Your task to perform on an android device: Is it going to rain tomorrow? Image 0: 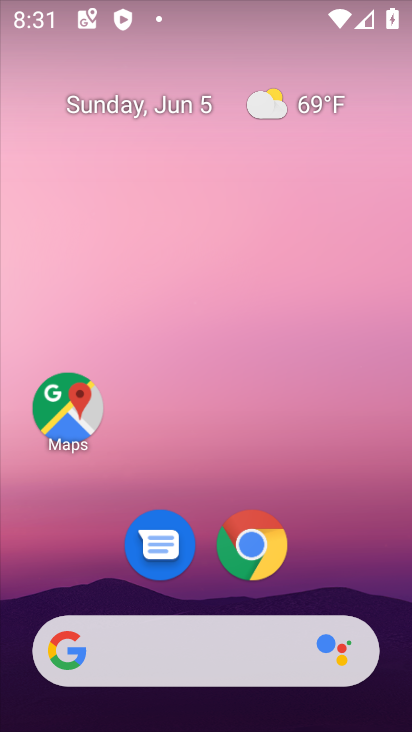
Step 0: drag from (367, 580) to (370, 214)
Your task to perform on an android device: Is it going to rain tomorrow? Image 1: 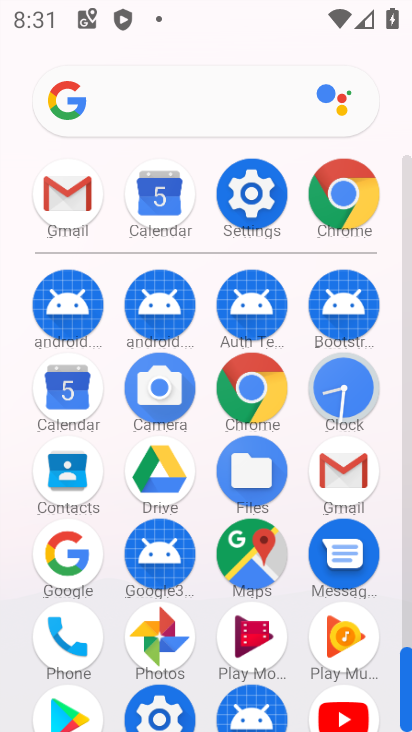
Step 1: click (231, 101)
Your task to perform on an android device: Is it going to rain tomorrow? Image 2: 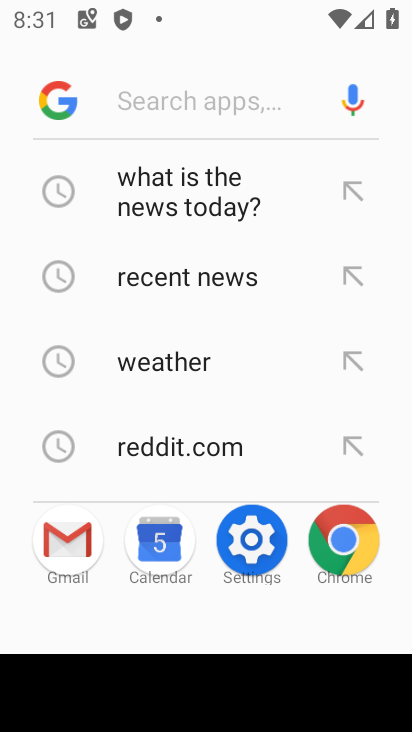
Step 2: click (216, 366)
Your task to perform on an android device: Is it going to rain tomorrow? Image 3: 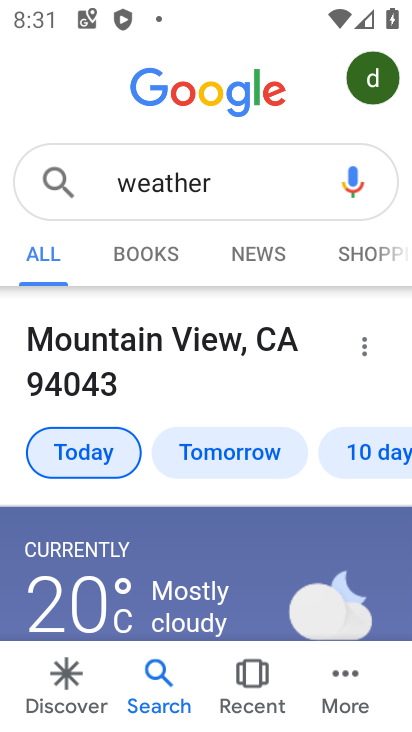
Step 3: click (224, 455)
Your task to perform on an android device: Is it going to rain tomorrow? Image 4: 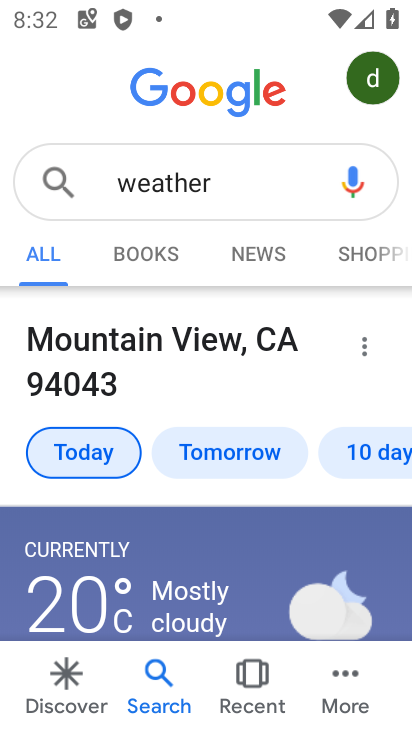
Step 4: click (226, 455)
Your task to perform on an android device: Is it going to rain tomorrow? Image 5: 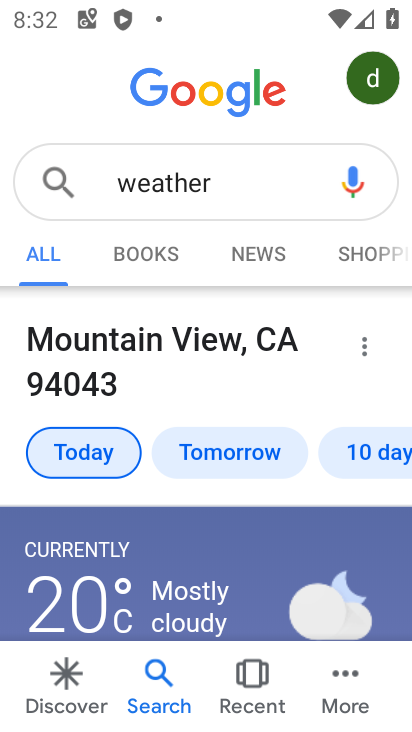
Step 5: drag from (285, 528) to (300, 365)
Your task to perform on an android device: Is it going to rain tomorrow? Image 6: 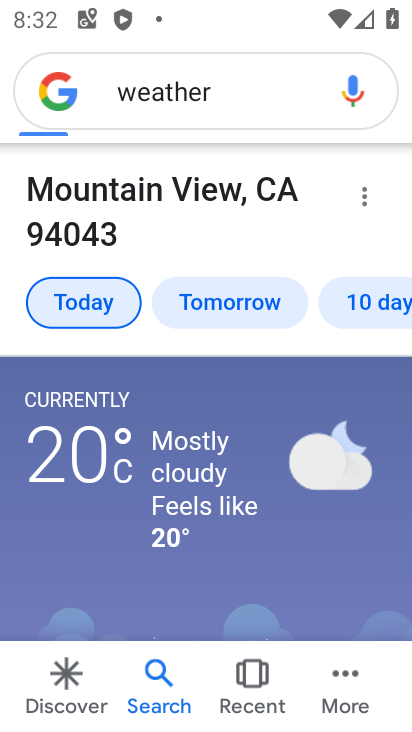
Step 6: click (230, 306)
Your task to perform on an android device: Is it going to rain tomorrow? Image 7: 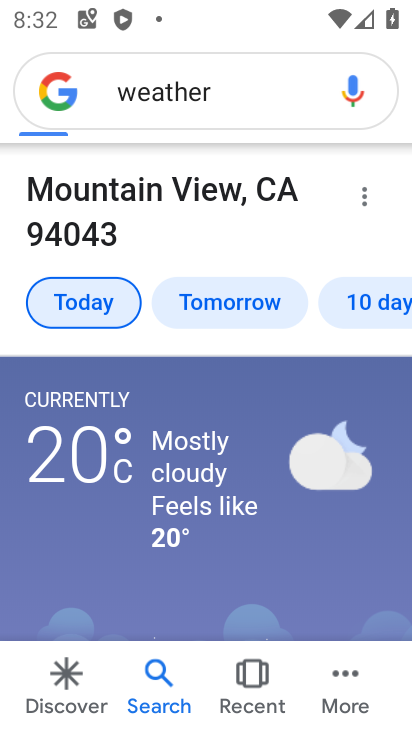
Step 7: click (230, 306)
Your task to perform on an android device: Is it going to rain tomorrow? Image 8: 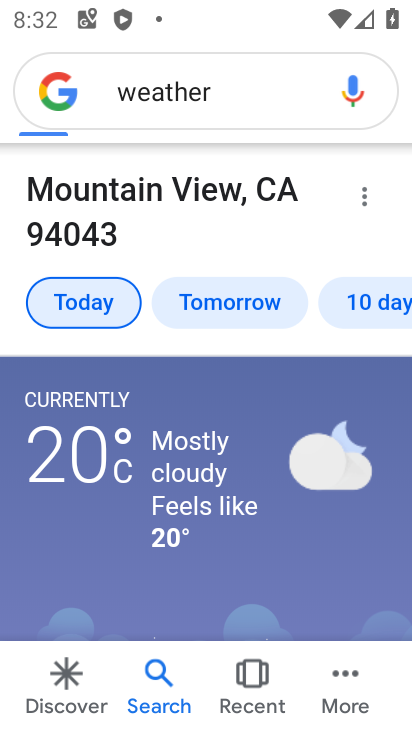
Step 8: task complete